Your task to perform on an android device: toggle javascript in the chrome app Image 0: 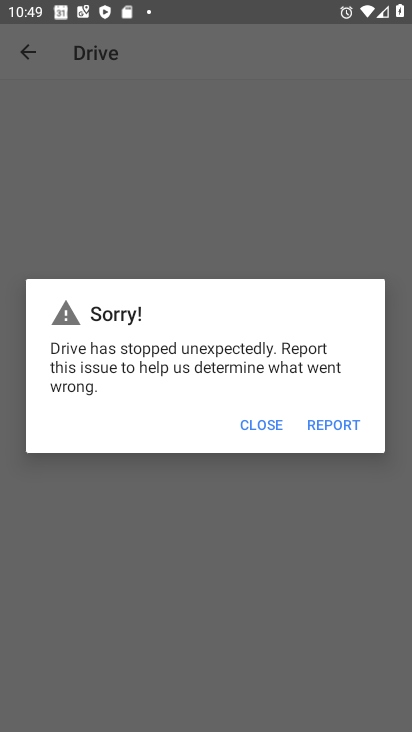
Step 0: press home button
Your task to perform on an android device: toggle javascript in the chrome app Image 1: 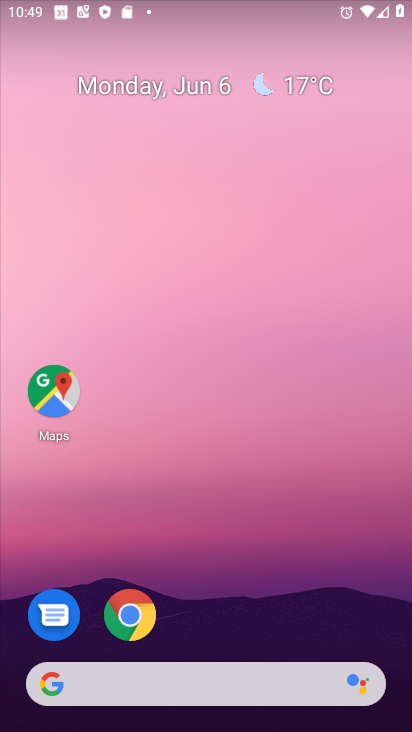
Step 1: drag from (224, 643) to (223, 8)
Your task to perform on an android device: toggle javascript in the chrome app Image 2: 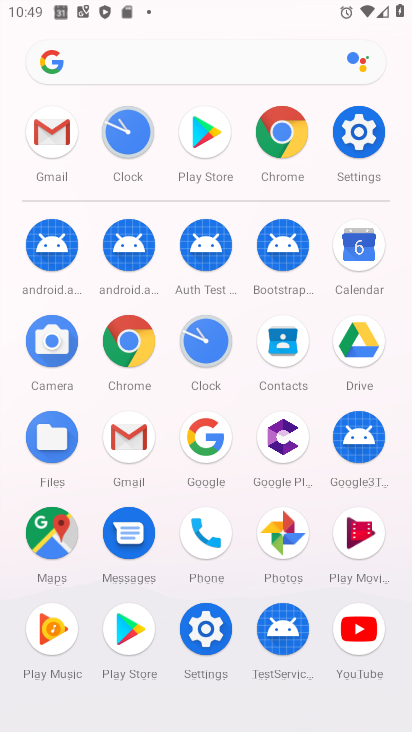
Step 2: click (279, 124)
Your task to perform on an android device: toggle javascript in the chrome app Image 3: 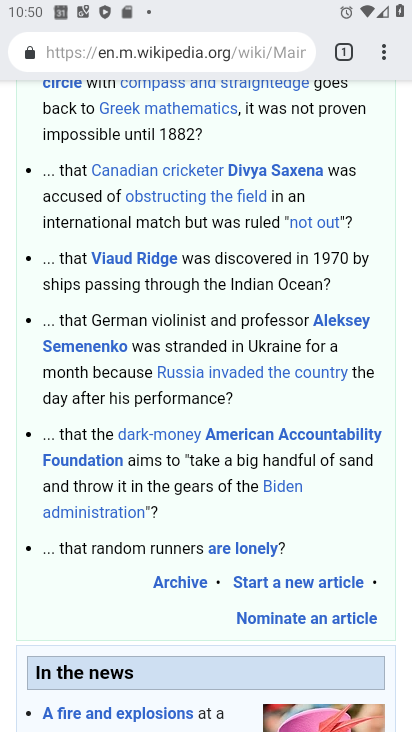
Step 3: click (378, 48)
Your task to perform on an android device: toggle javascript in the chrome app Image 4: 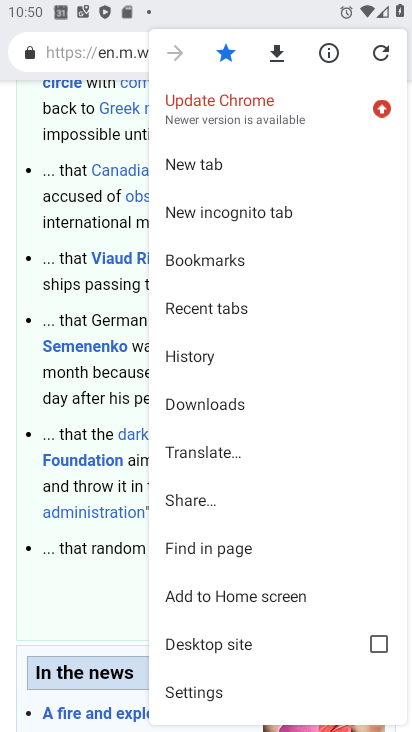
Step 4: click (235, 690)
Your task to perform on an android device: toggle javascript in the chrome app Image 5: 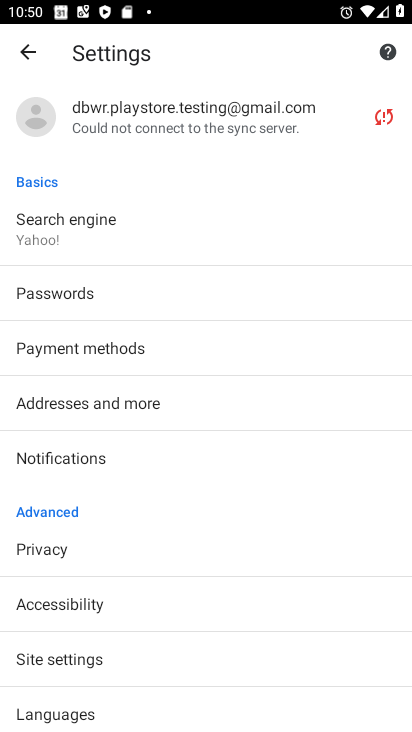
Step 5: click (118, 653)
Your task to perform on an android device: toggle javascript in the chrome app Image 6: 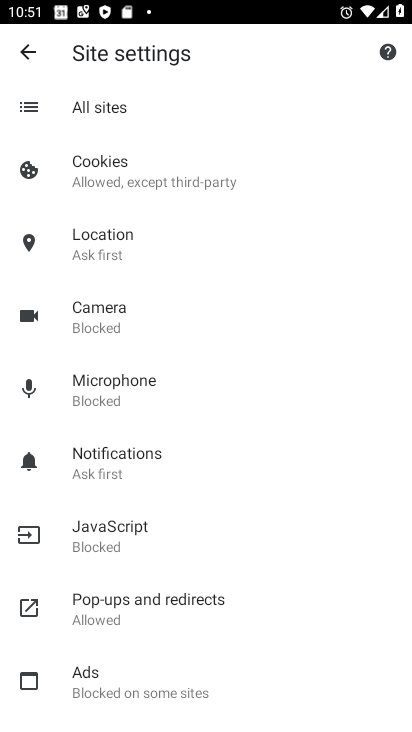
Step 6: click (151, 537)
Your task to perform on an android device: toggle javascript in the chrome app Image 7: 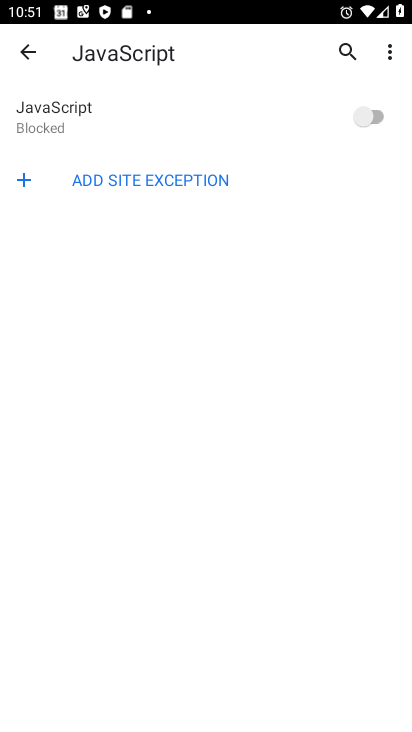
Step 7: click (372, 116)
Your task to perform on an android device: toggle javascript in the chrome app Image 8: 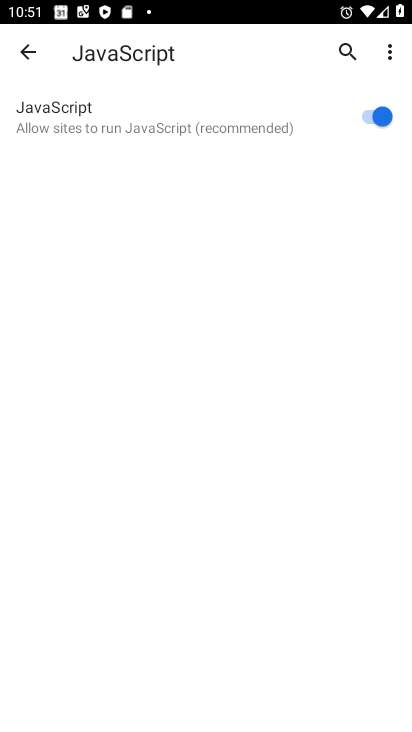
Step 8: task complete